Your task to perform on an android device: install app "Upside-Cash back on gas & food" Image 0: 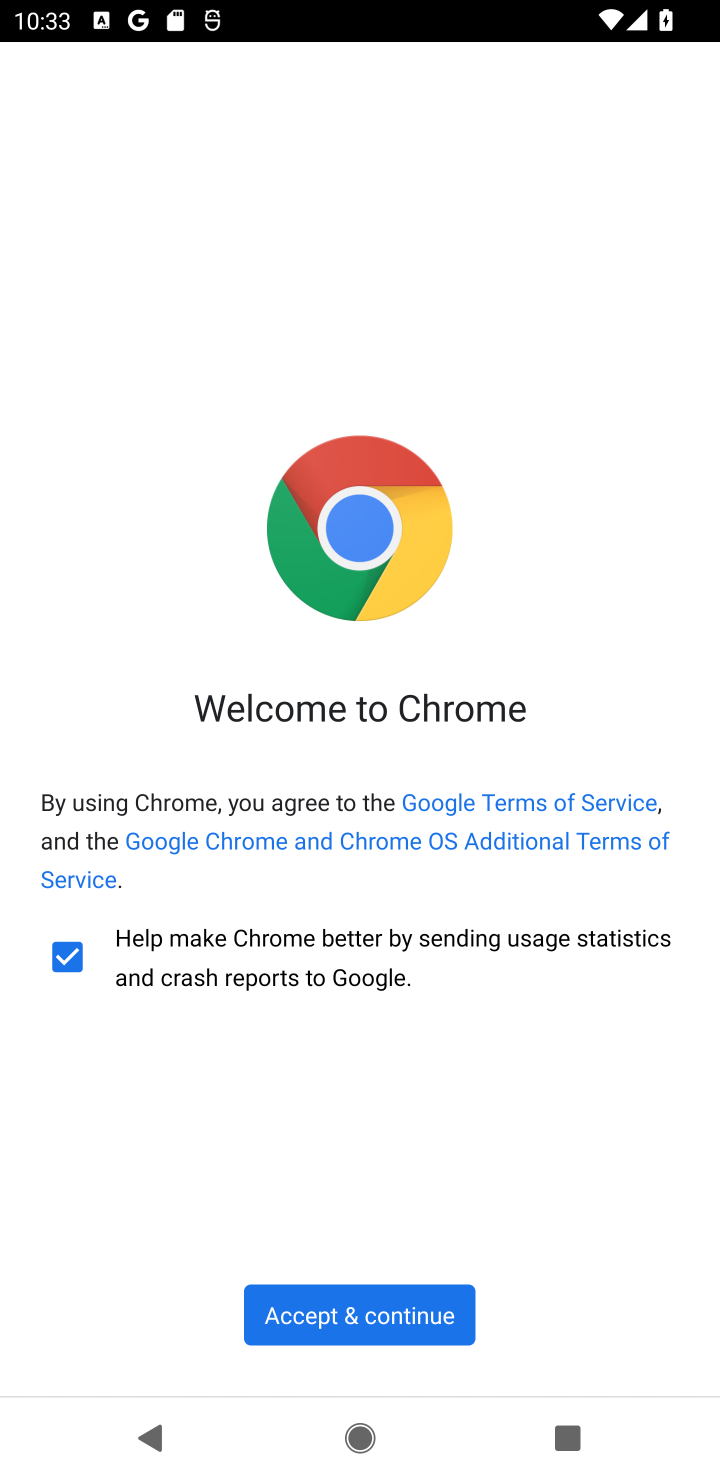
Step 0: press back button
Your task to perform on an android device: install app "Upside-Cash back on gas & food" Image 1: 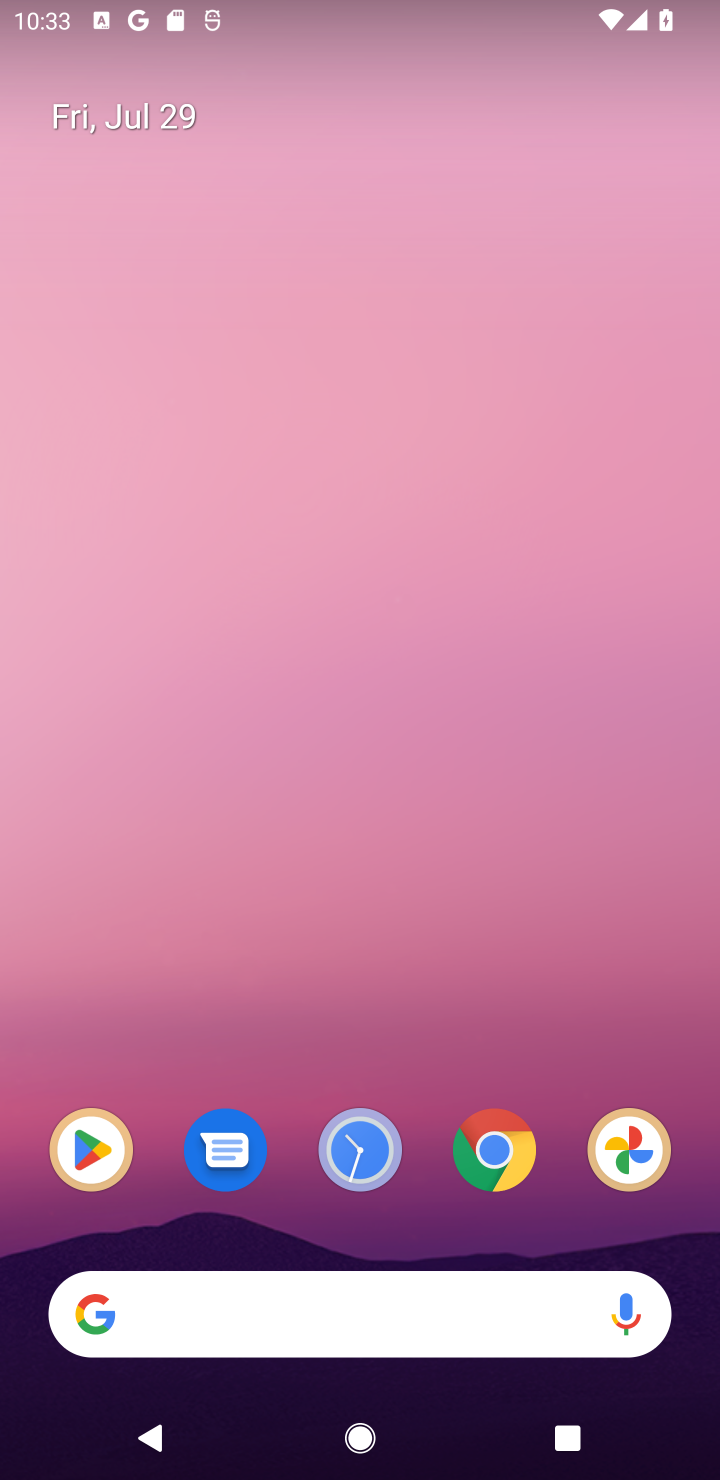
Step 1: click (92, 1144)
Your task to perform on an android device: install app "Upside-Cash back on gas & food" Image 2: 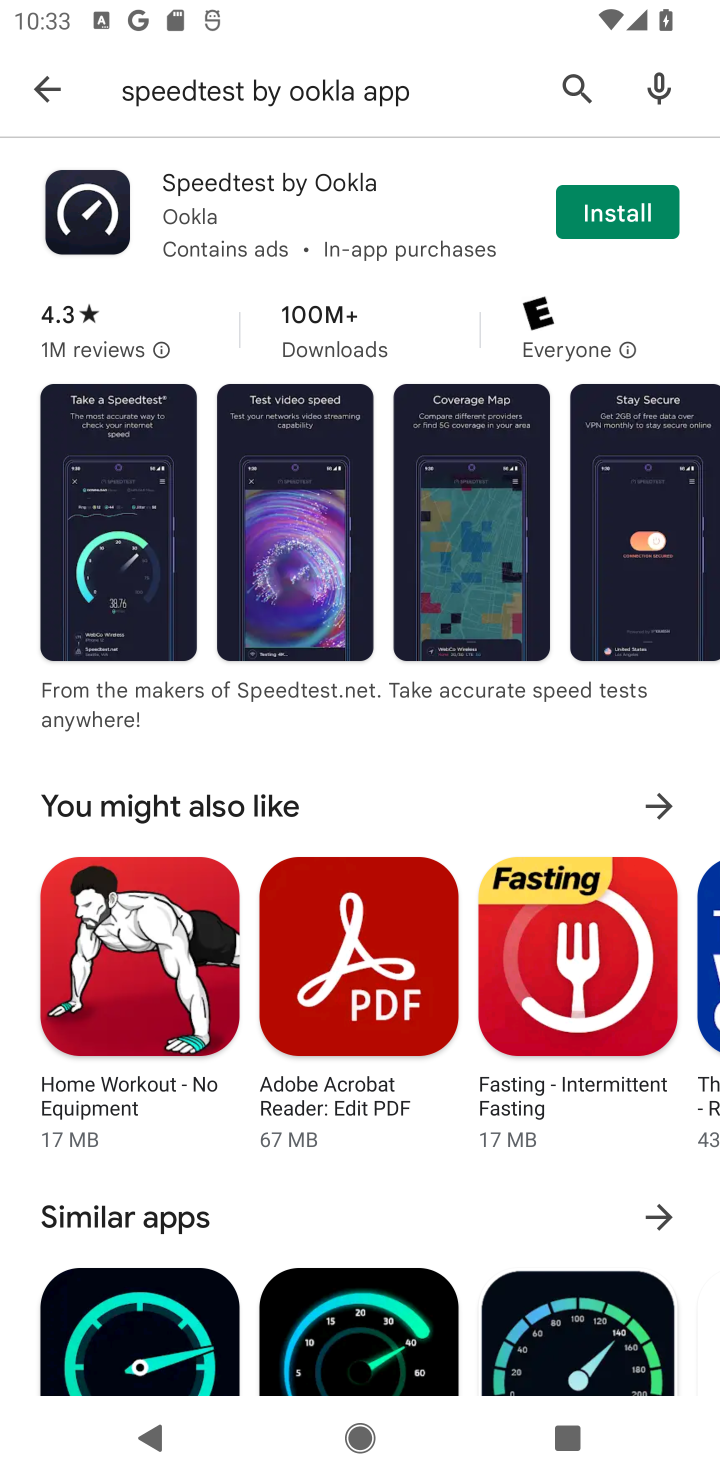
Step 2: drag from (299, 1202) to (502, 333)
Your task to perform on an android device: install app "Upside-Cash back on gas & food" Image 3: 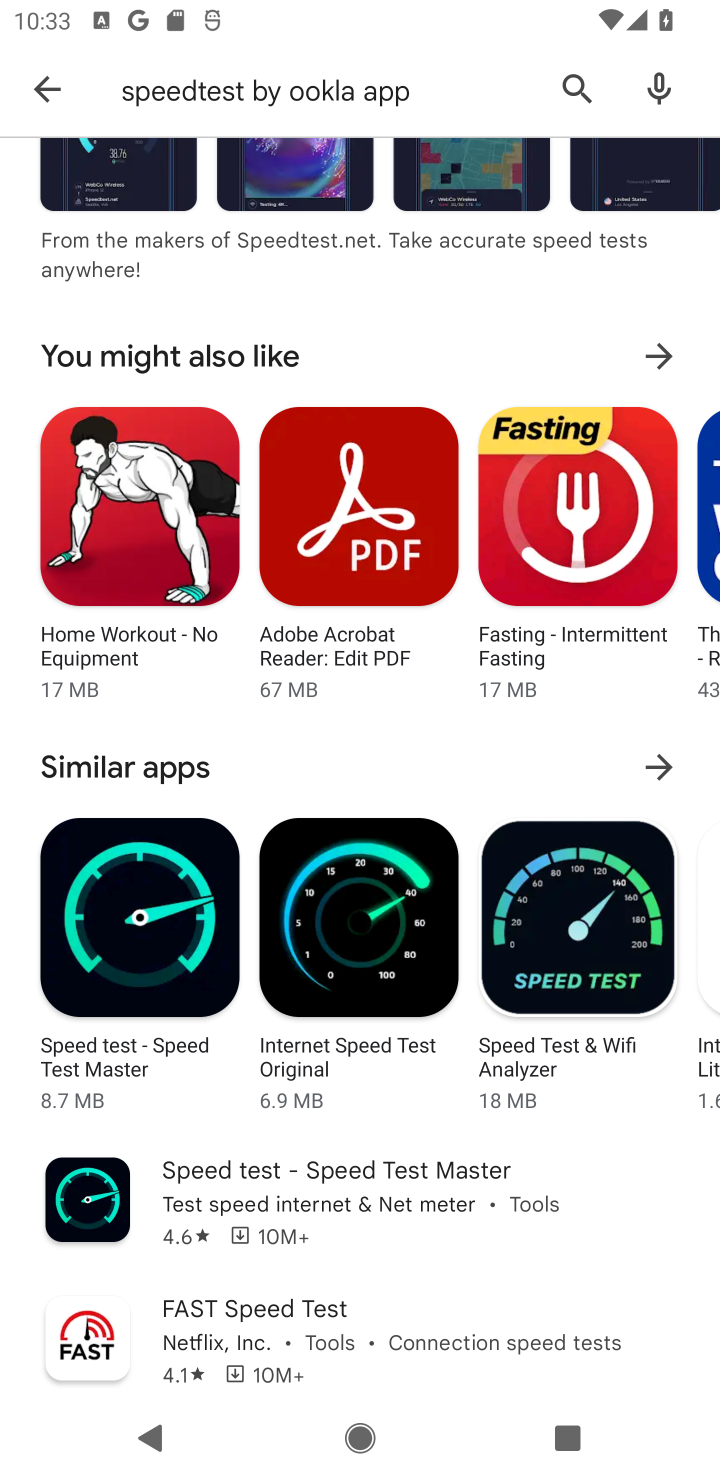
Step 3: drag from (440, 456) to (383, 1389)
Your task to perform on an android device: install app "Upside-Cash back on gas & food" Image 4: 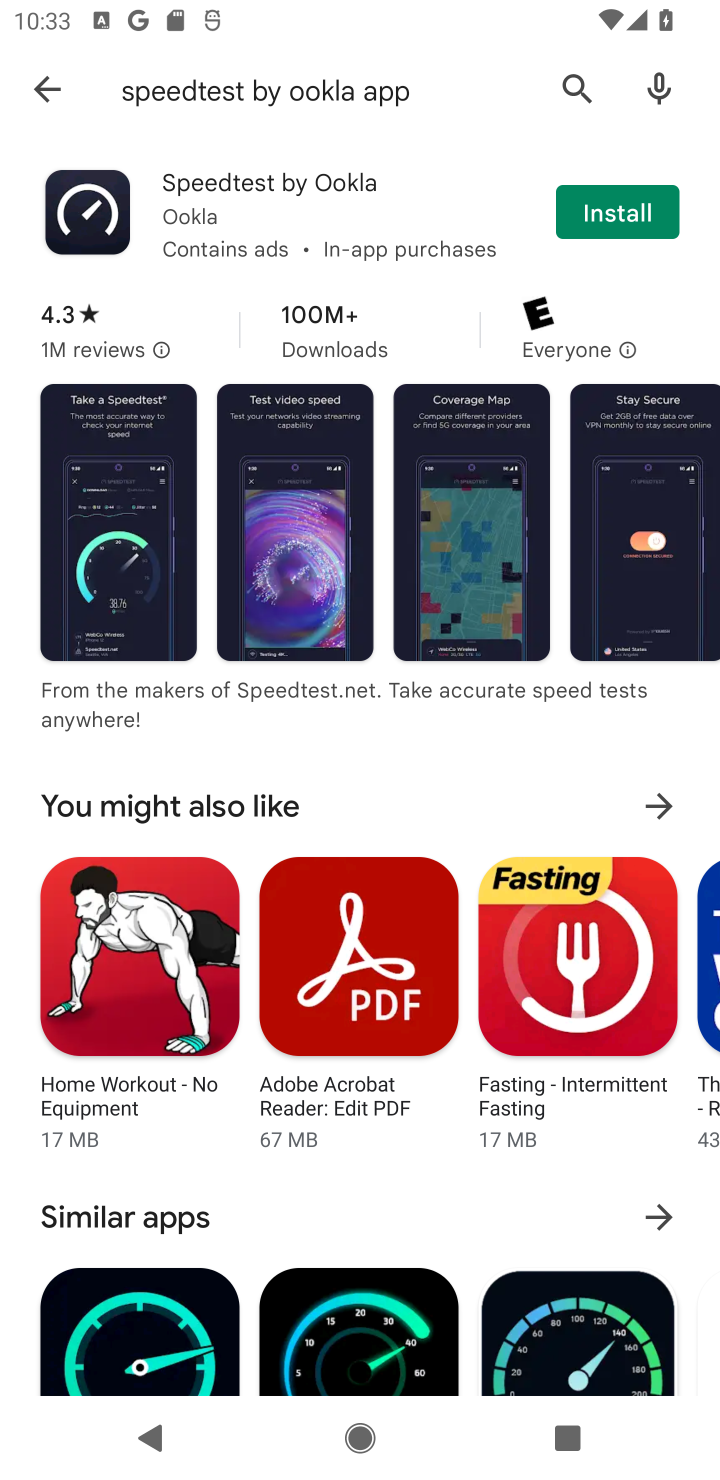
Step 4: click (573, 78)
Your task to perform on an android device: install app "Upside-Cash back on gas & food" Image 5: 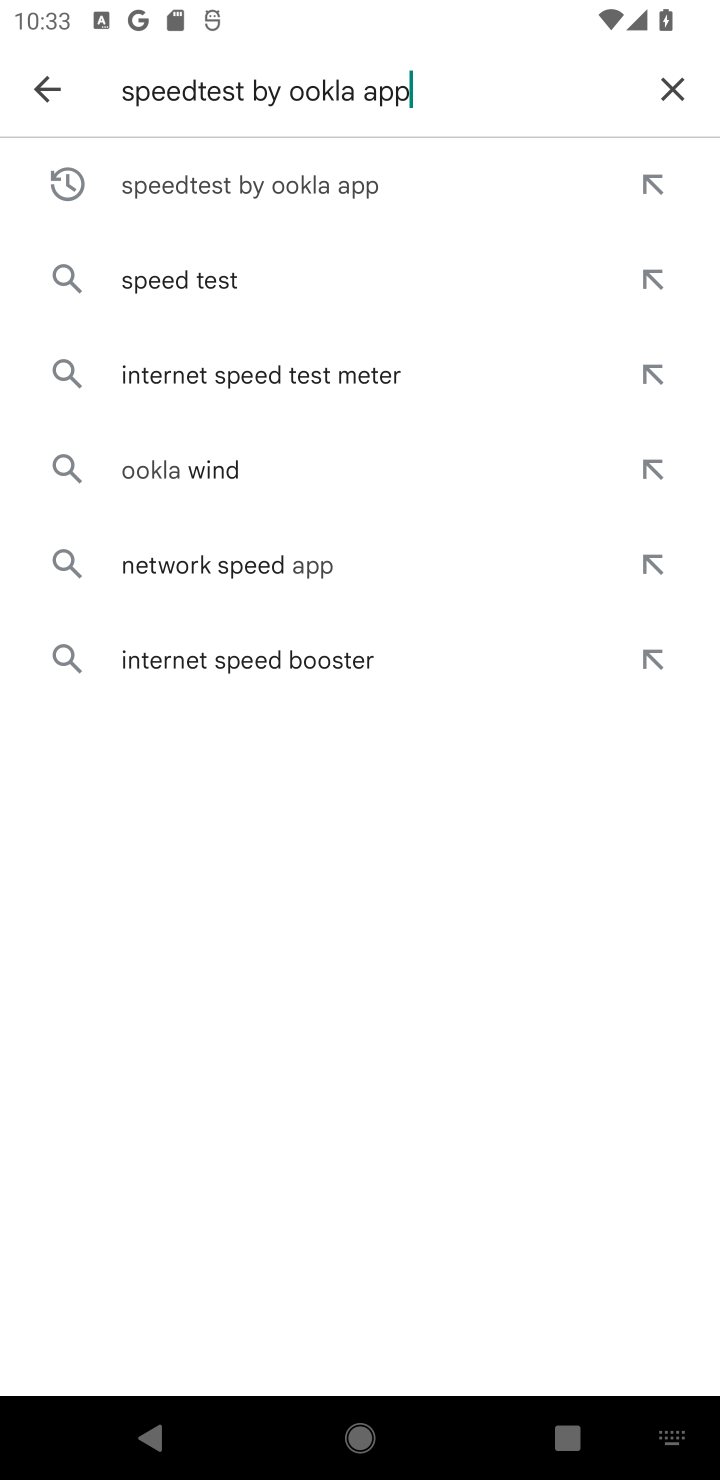
Step 5: click (670, 91)
Your task to perform on an android device: install app "Upside-Cash back on gas & food" Image 6: 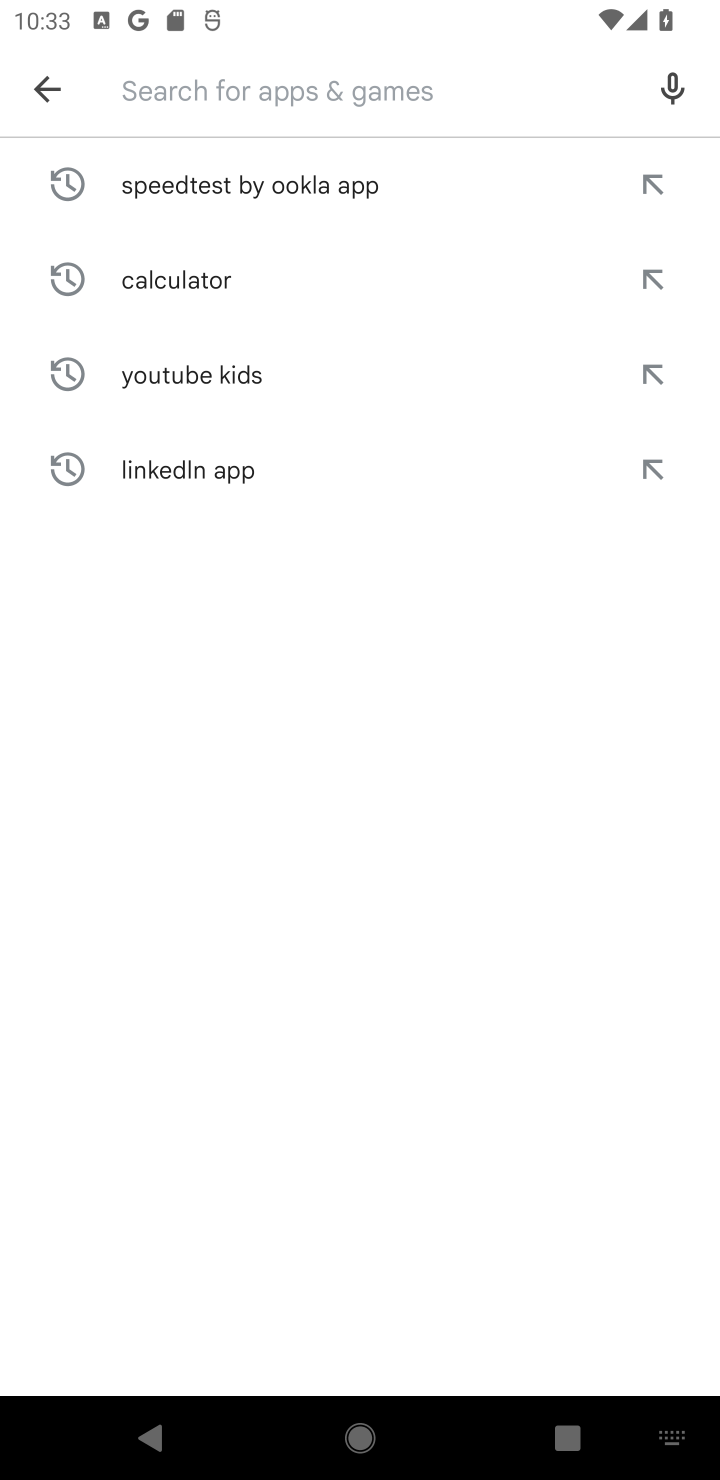
Step 6: click (361, 87)
Your task to perform on an android device: install app "Upside-Cash back on gas & food" Image 7: 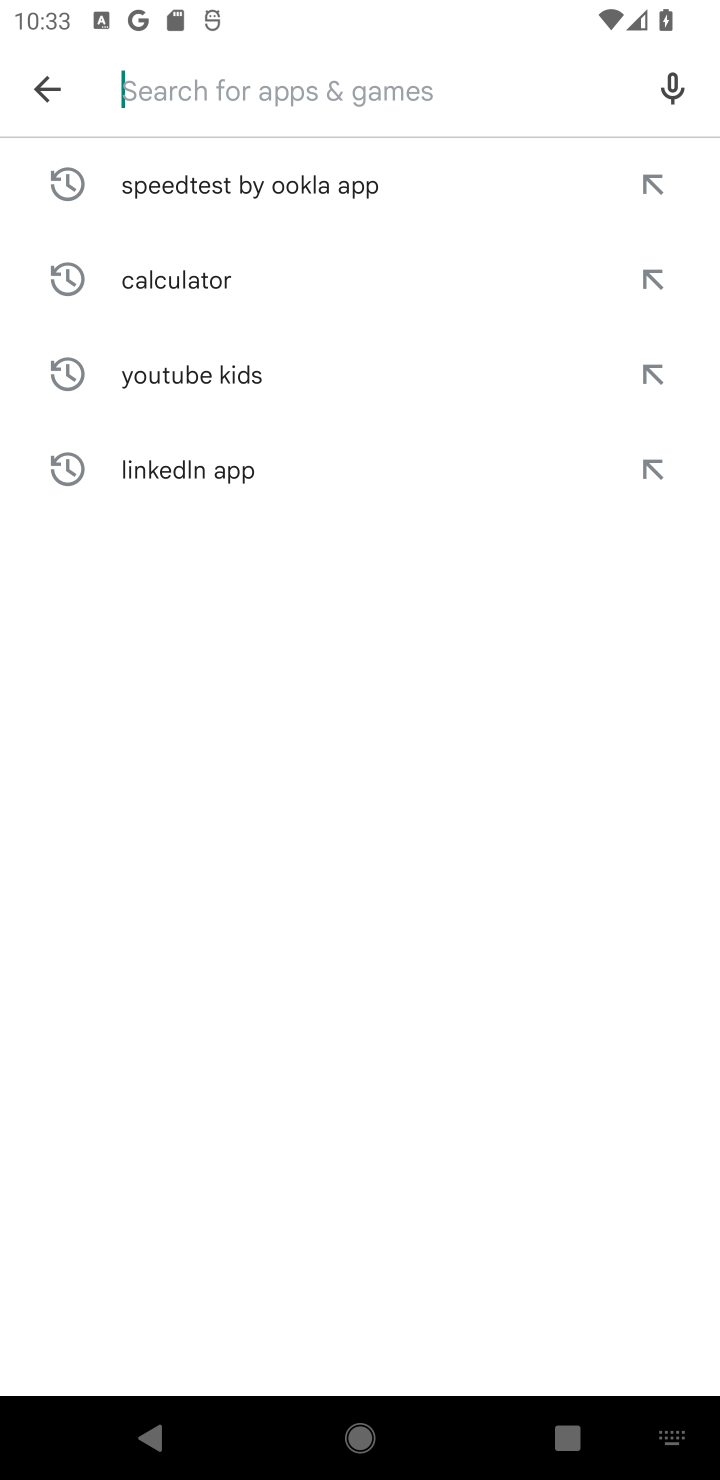
Step 7: type "upside cash"
Your task to perform on an android device: install app "Upside-Cash back on gas & food" Image 8: 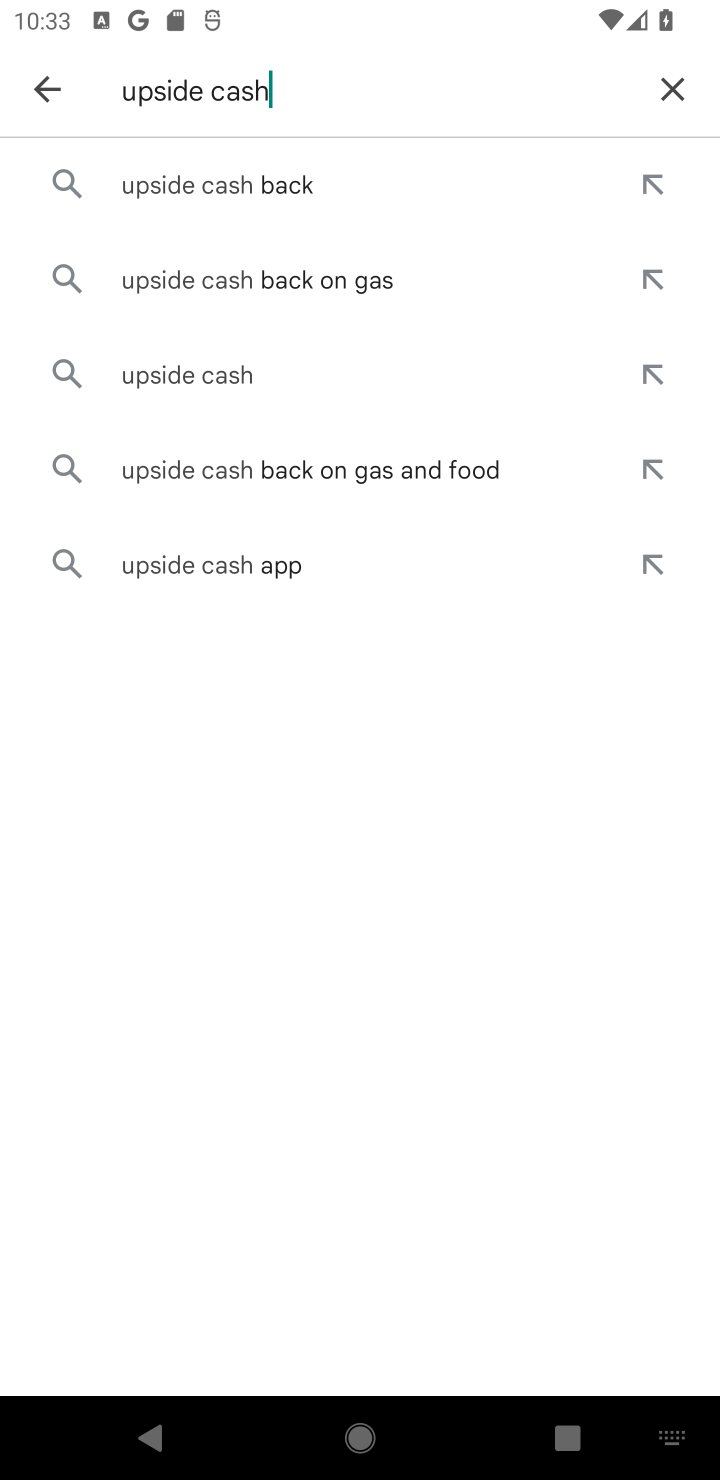
Step 8: click (275, 187)
Your task to perform on an android device: install app "Upside-Cash back on gas & food" Image 9: 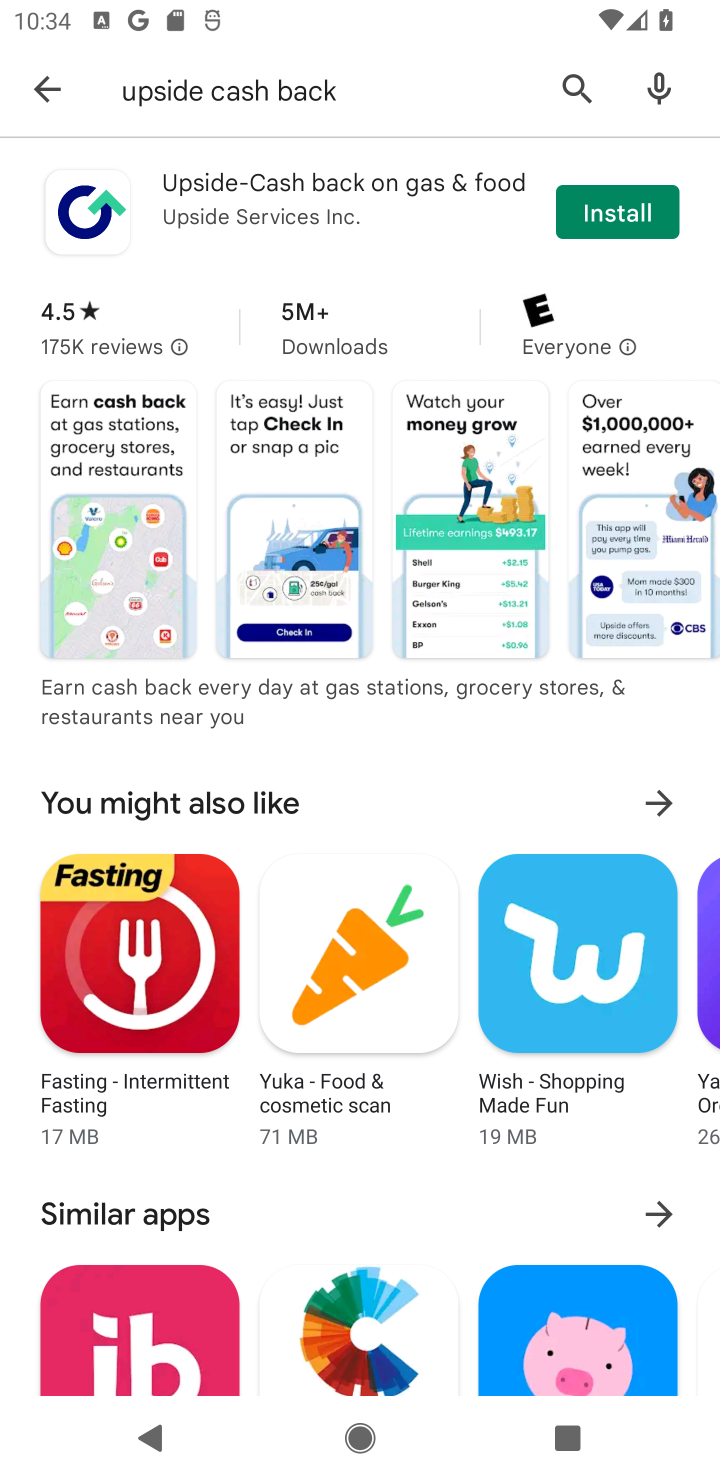
Step 9: click (613, 206)
Your task to perform on an android device: install app "Upside-Cash back on gas & food" Image 10: 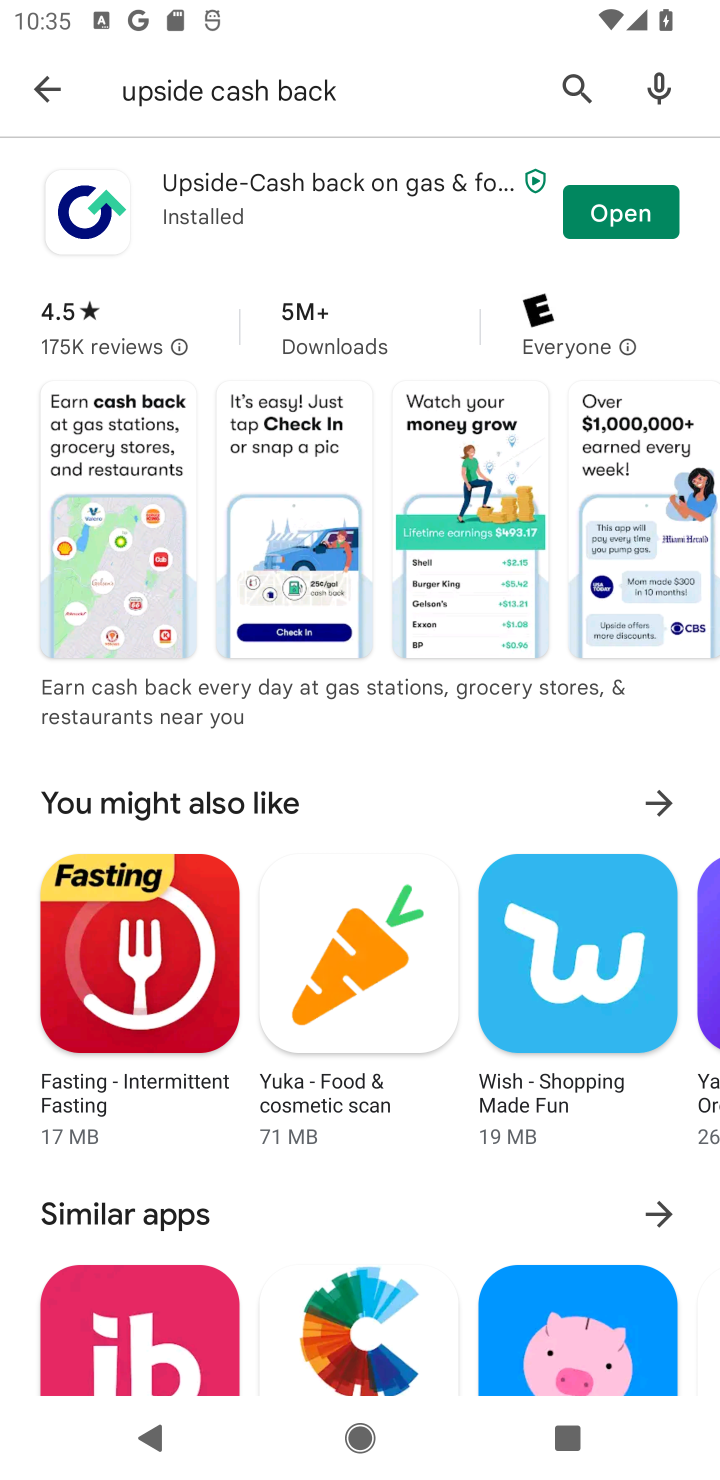
Step 10: task complete